Your task to perform on an android device: Open Google Image 0: 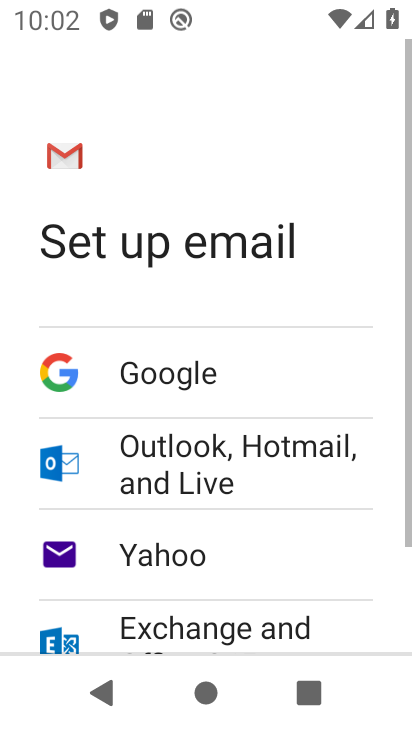
Step 0: press home button
Your task to perform on an android device: Open Google Image 1: 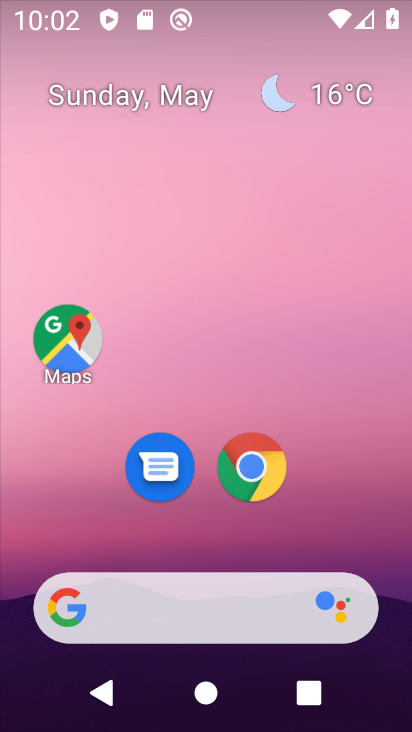
Step 1: drag from (371, 528) to (326, 120)
Your task to perform on an android device: Open Google Image 2: 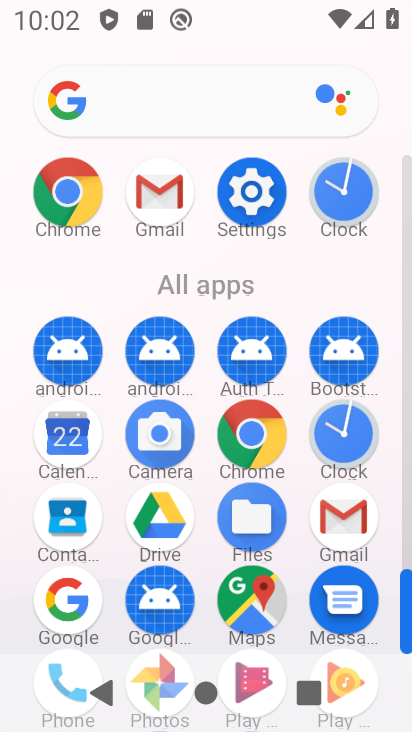
Step 2: click (54, 611)
Your task to perform on an android device: Open Google Image 3: 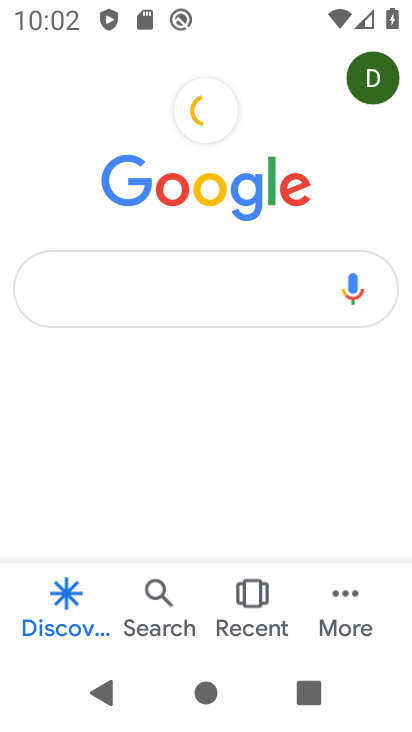
Step 3: click (345, 609)
Your task to perform on an android device: Open Google Image 4: 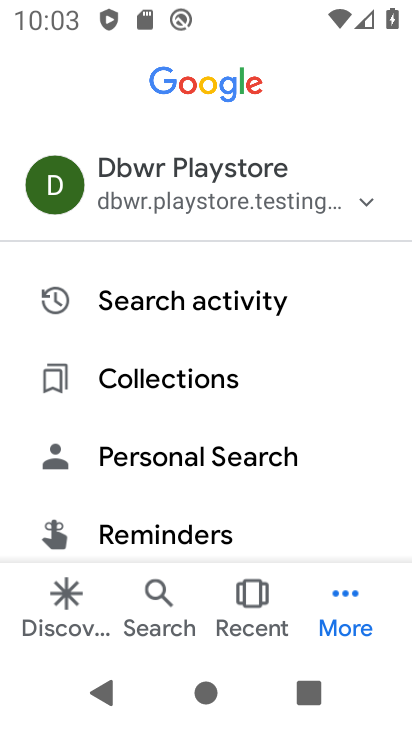
Step 4: task complete